Your task to perform on an android device: Go to eBay Image 0: 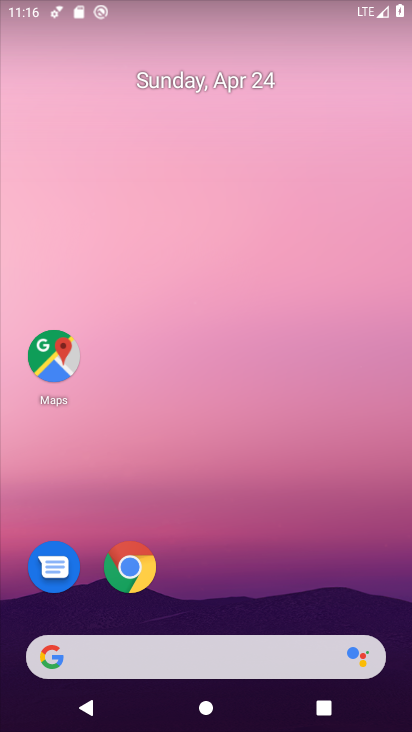
Step 0: drag from (249, 541) to (294, 86)
Your task to perform on an android device: Go to eBay Image 1: 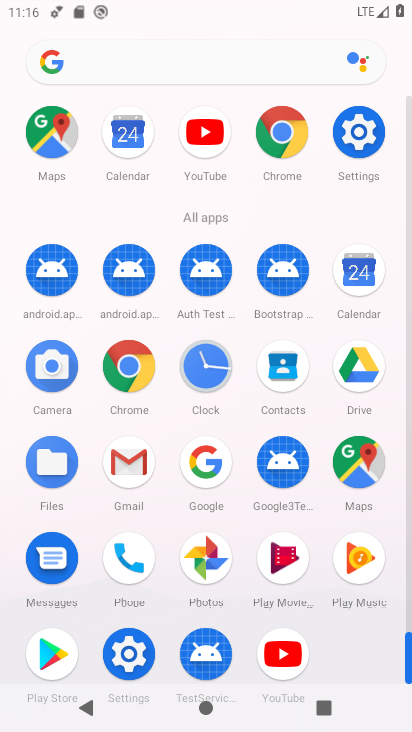
Step 1: click (293, 145)
Your task to perform on an android device: Go to eBay Image 2: 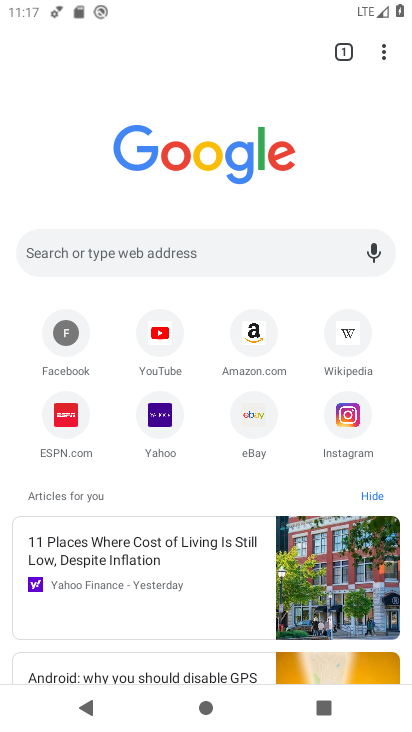
Step 2: click (250, 429)
Your task to perform on an android device: Go to eBay Image 3: 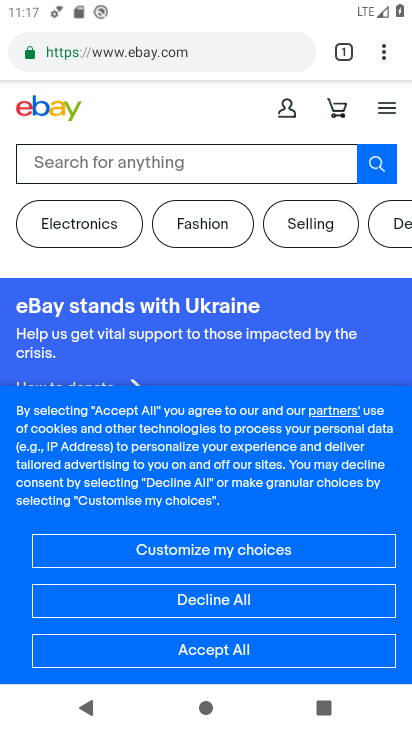
Step 3: task complete